Your task to perform on an android device: When is my next meeting? Image 0: 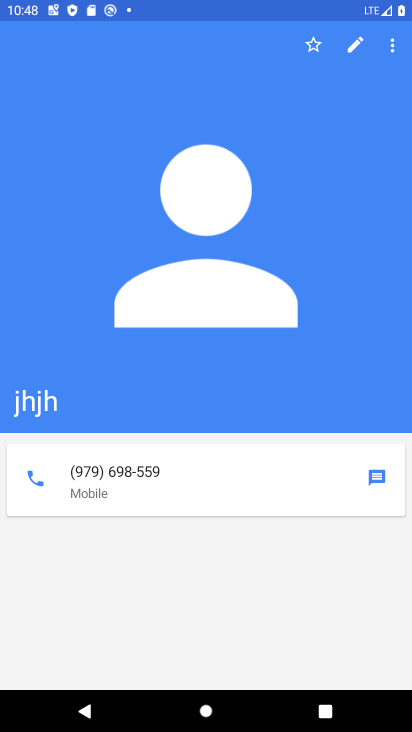
Step 0: press home button
Your task to perform on an android device: When is my next meeting? Image 1: 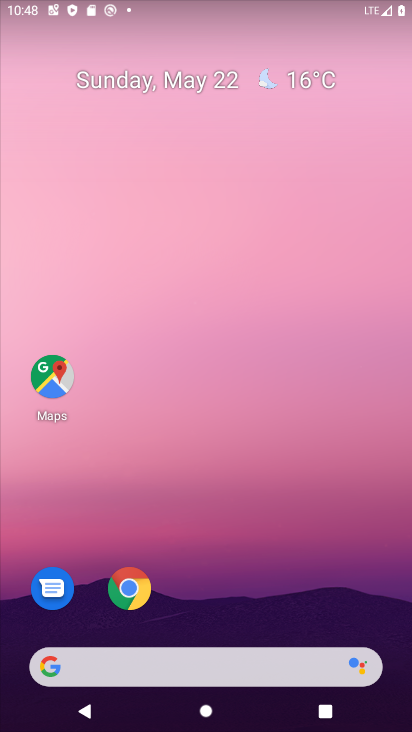
Step 1: drag from (219, 634) to (210, 282)
Your task to perform on an android device: When is my next meeting? Image 2: 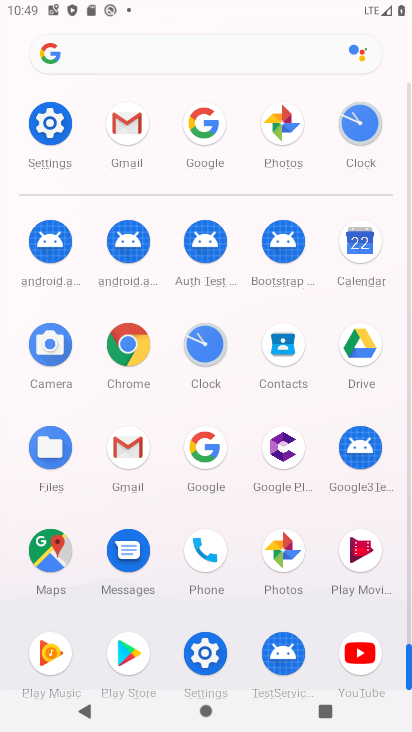
Step 2: click (359, 239)
Your task to perform on an android device: When is my next meeting? Image 3: 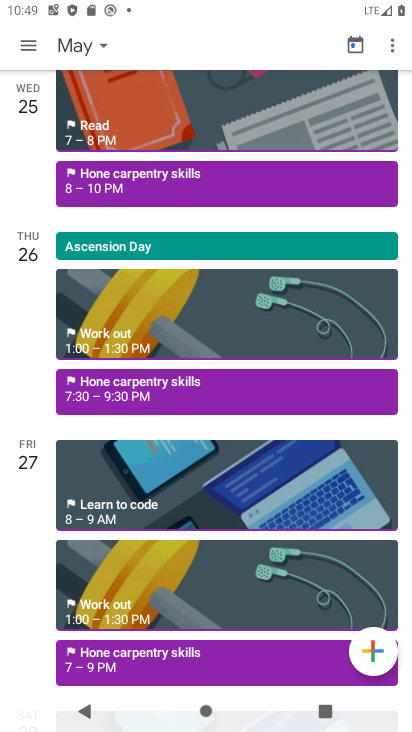
Step 3: task complete